Your task to perform on an android device: Show me recent news Image 0: 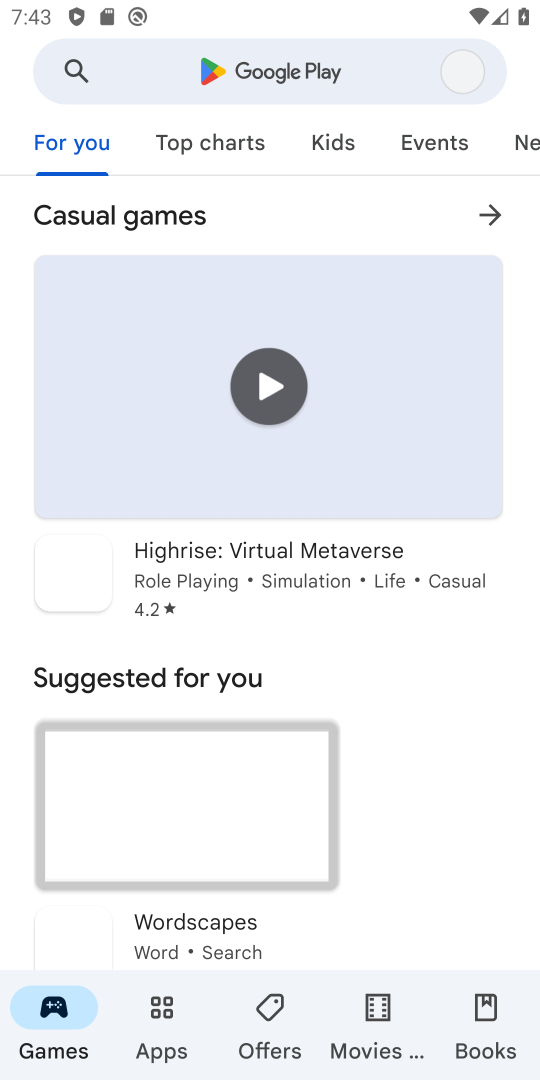
Step 0: press home button
Your task to perform on an android device: Show me recent news Image 1: 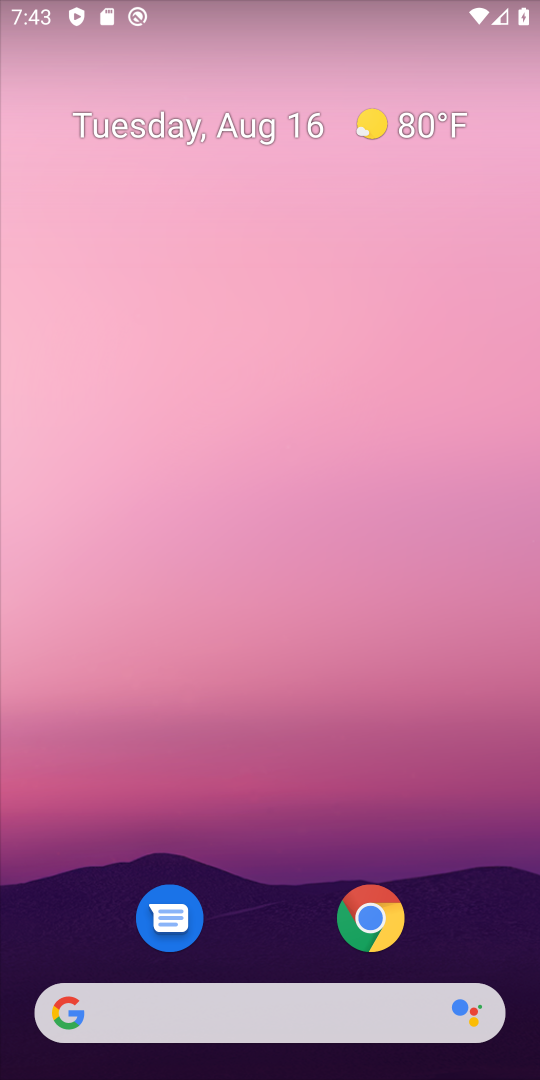
Step 1: drag from (346, 618) to (394, 339)
Your task to perform on an android device: Show me recent news Image 2: 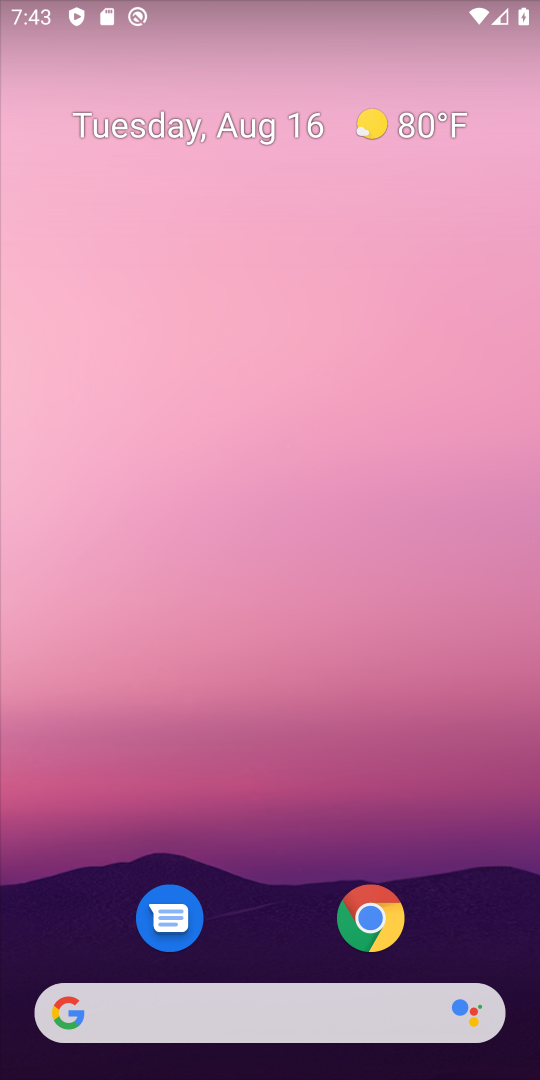
Step 2: drag from (229, 955) to (301, 122)
Your task to perform on an android device: Show me recent news Image 3: 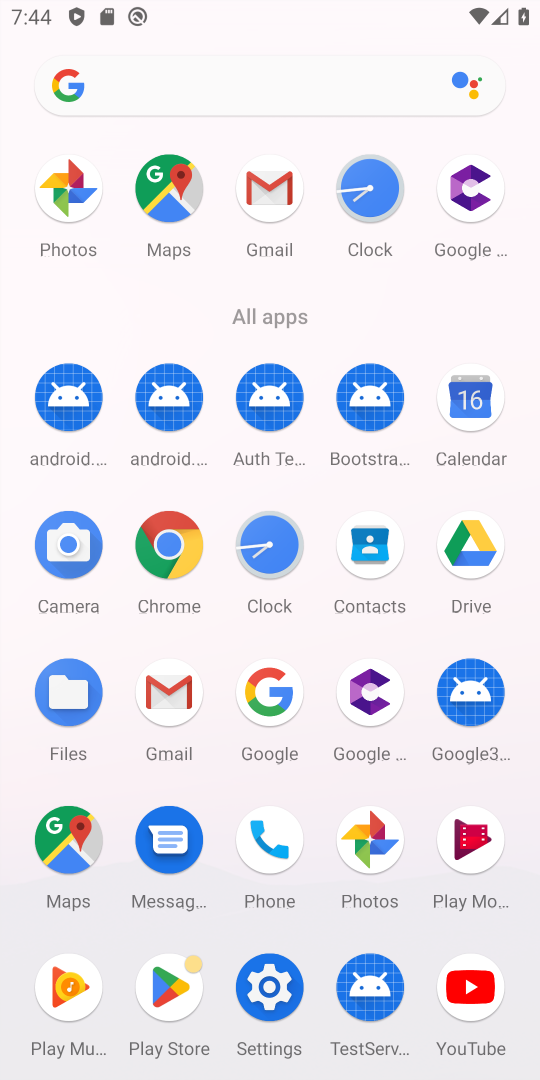
Step 3: click (261, 716)
Your task to perform on an android device: Show me recent news Image 4: 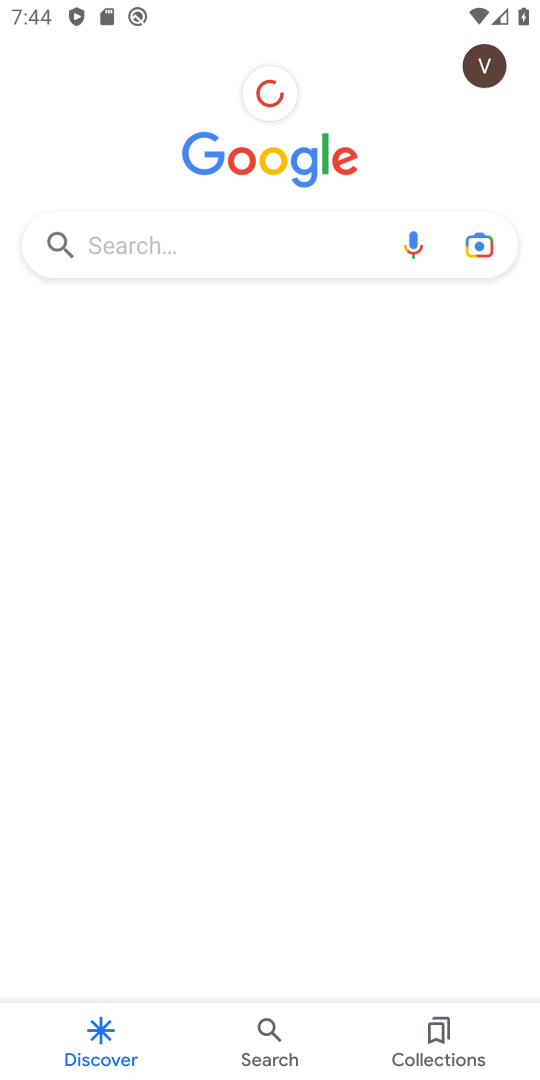
Step 4: click (207, 253)
Your task to perform on an android device: Show me recent news Image 5: 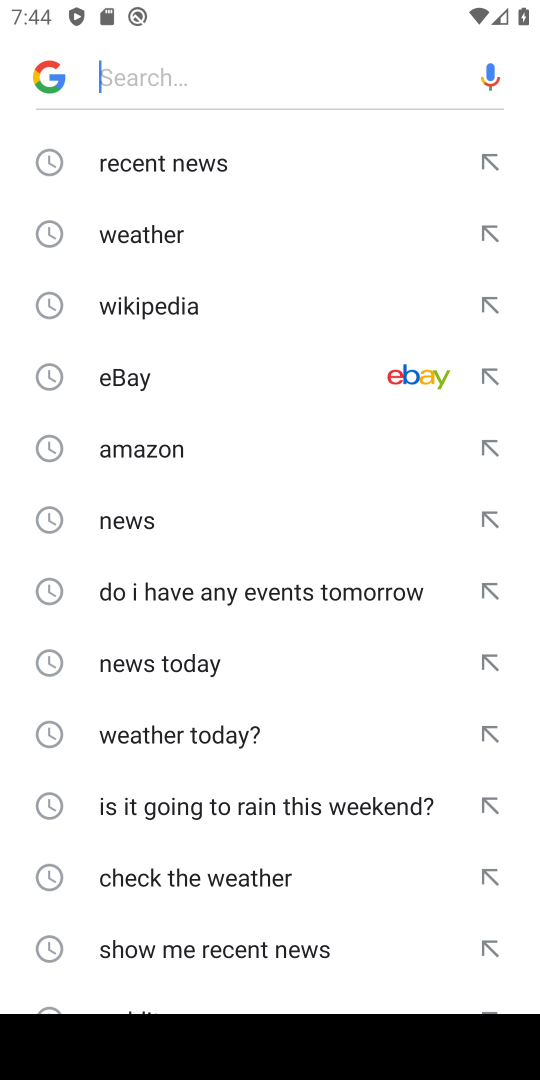
Step 5: click (198, 169)
Your task to perform on an android device: Show me recent news Image 6: 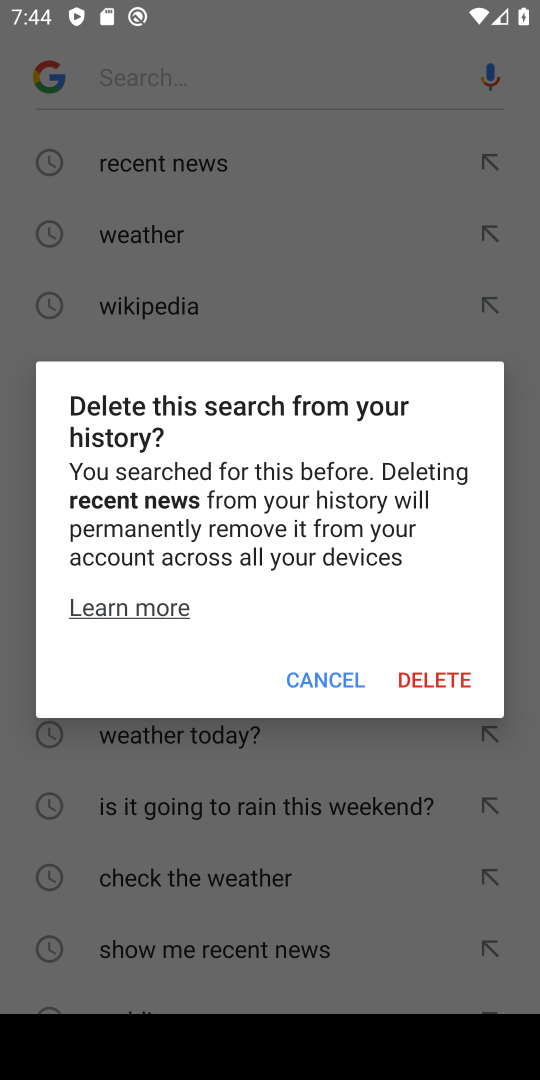
Step 6: click (232, 168)
Your task to perform on an android device: Show me recent news Image 7: 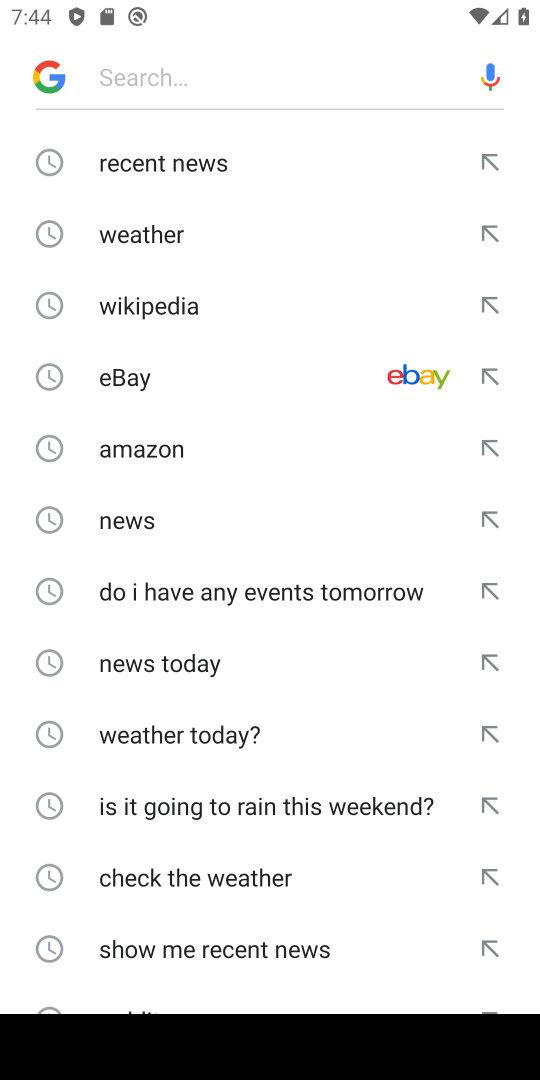
Step 7: click (232, 168)
Your task to perform on an android device: Show me recent news Image 8: 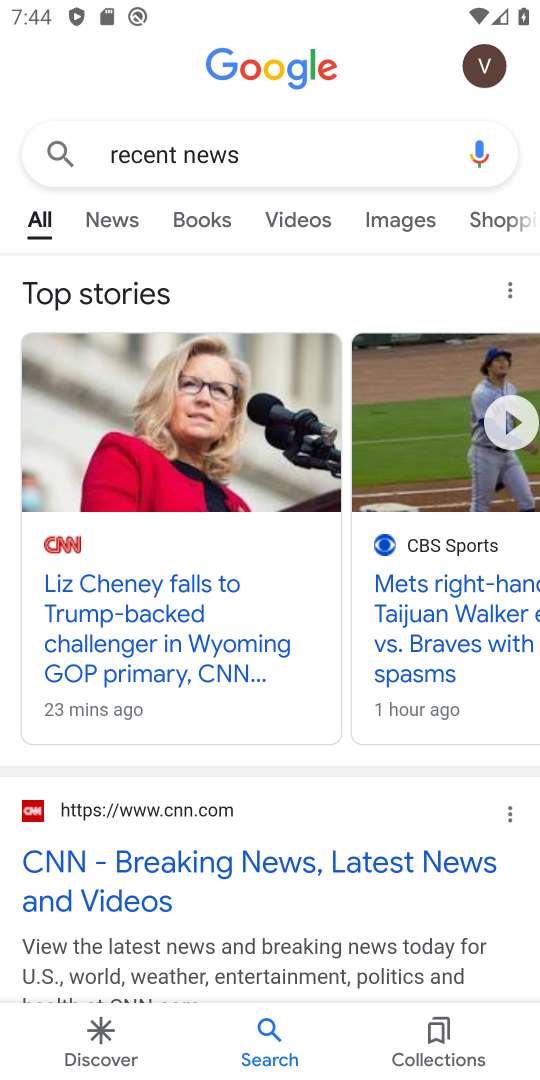
Step 8: task complete